Your task to perform on an android device: open app "Google Chrome" Image 0: 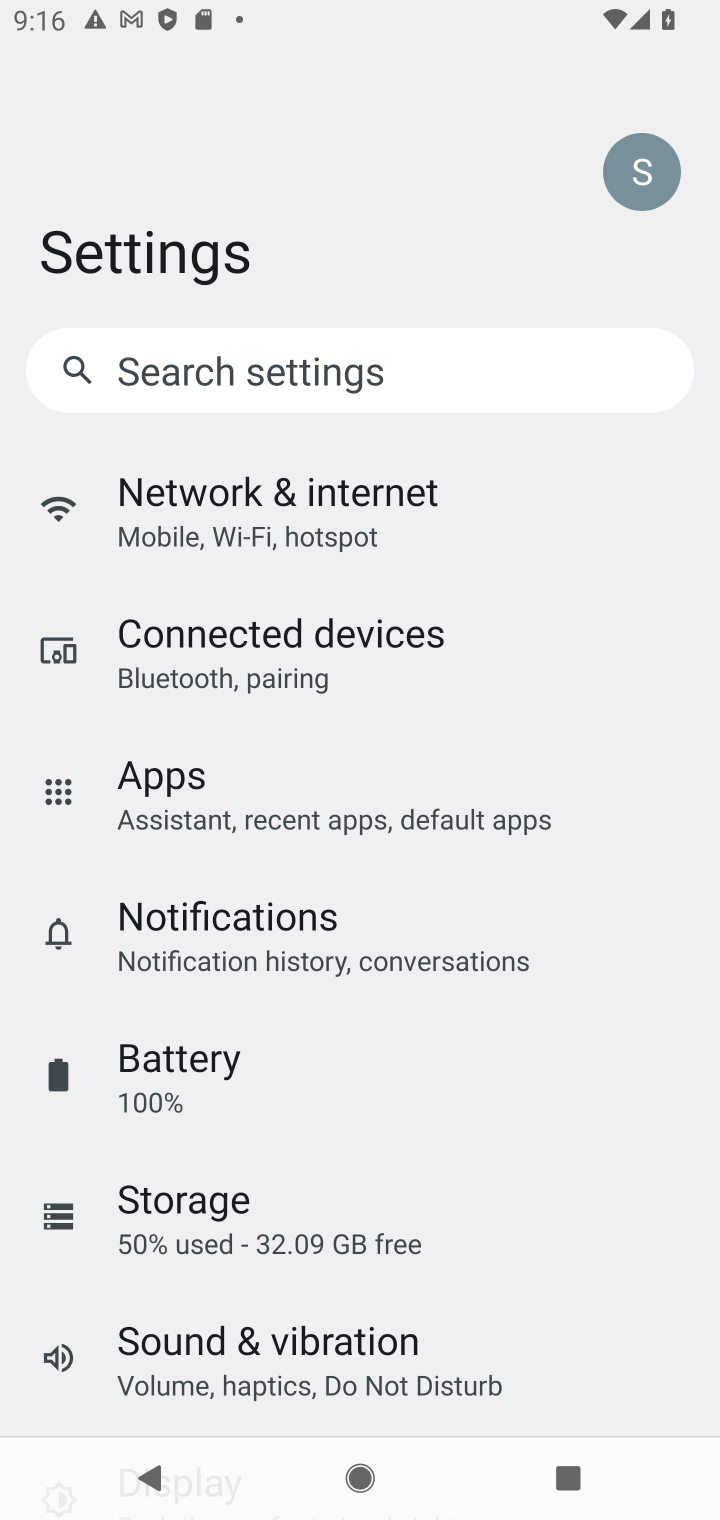
Step 0: press home button
Your task to perform on an android device: open app "Google Chrome" Image 1: 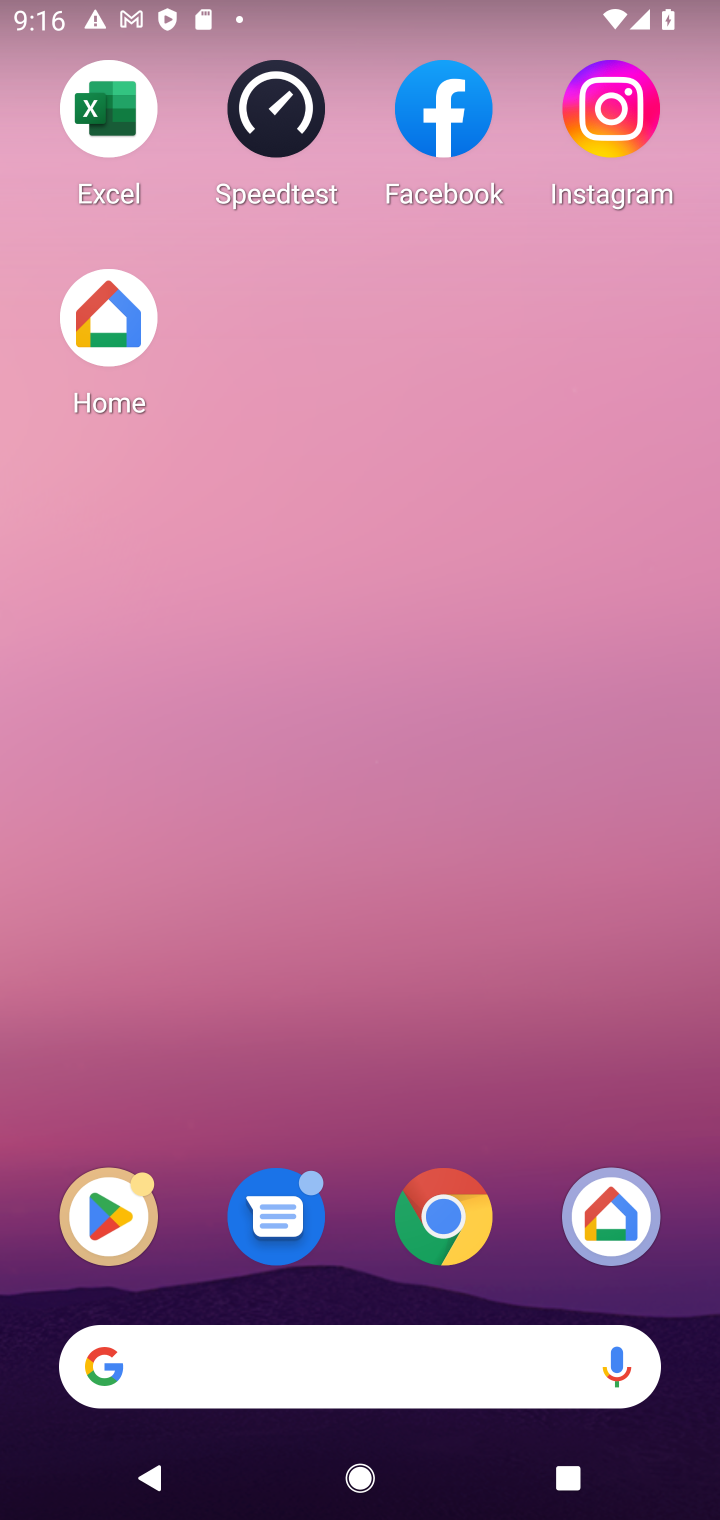
Step 1: click (450, 1220)
Your task to perform on an android device: open app "Google Chrome" Image 2: 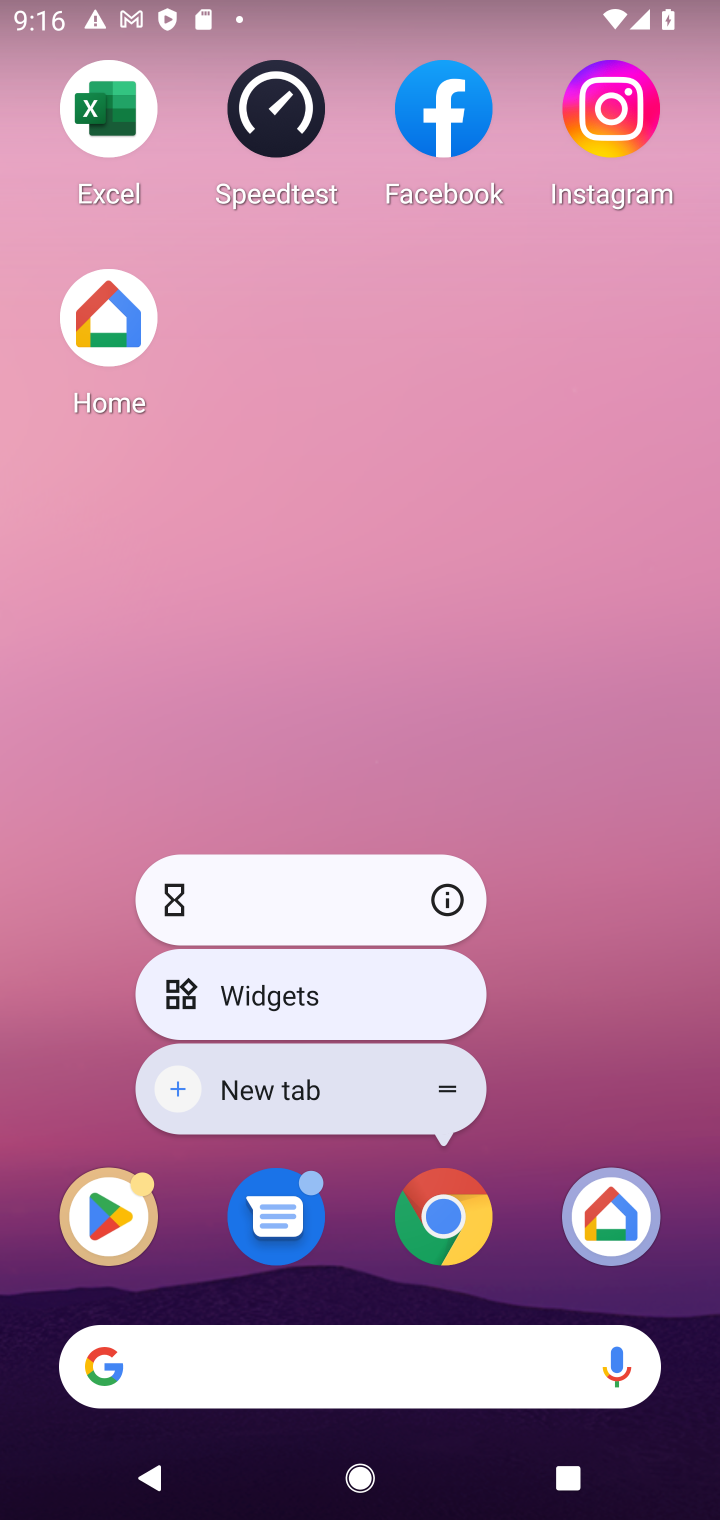
Step 2: click (450, 1220)
Your task to perform on an android device: open app "Google Chrome" Image 3: 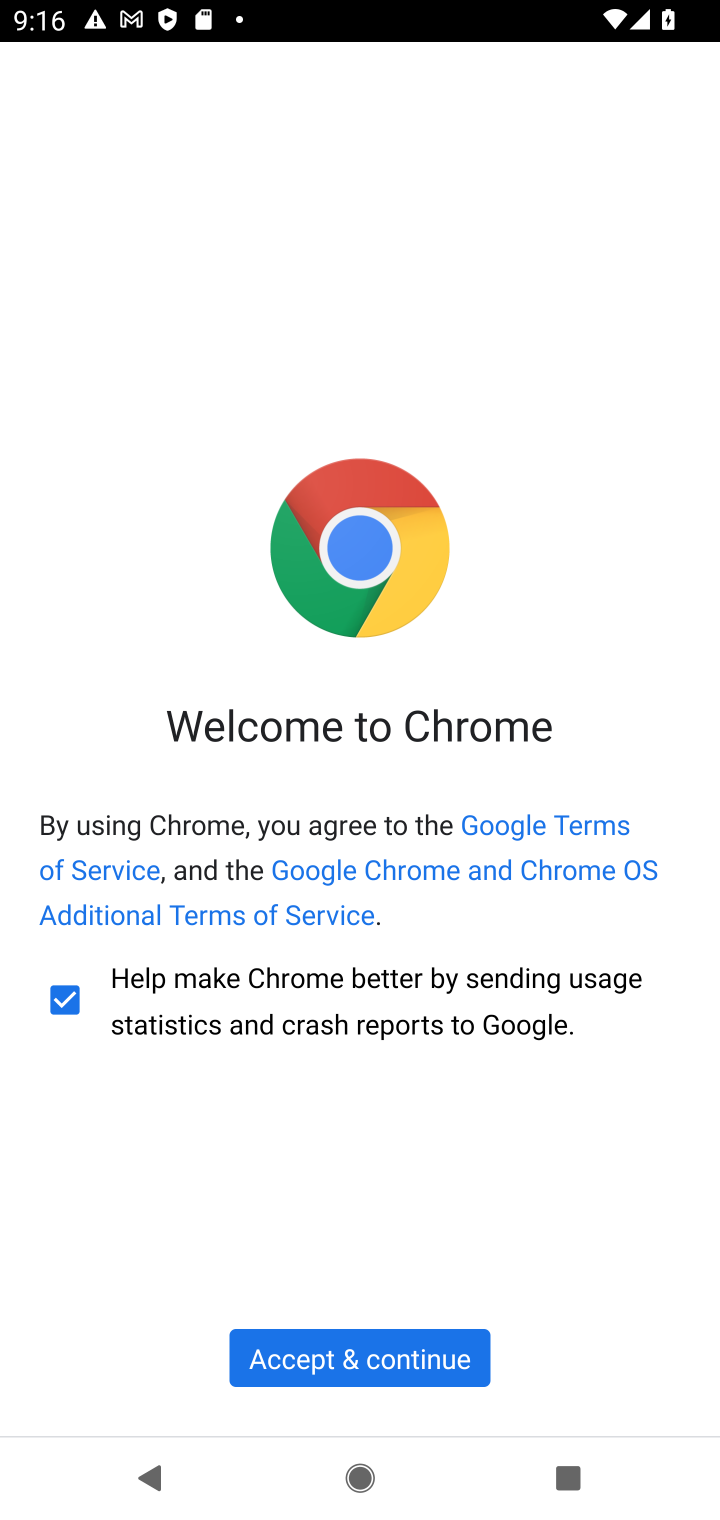
Step 3: task complete